Your task to perform on an android device: Open the stopwatch Image 0: 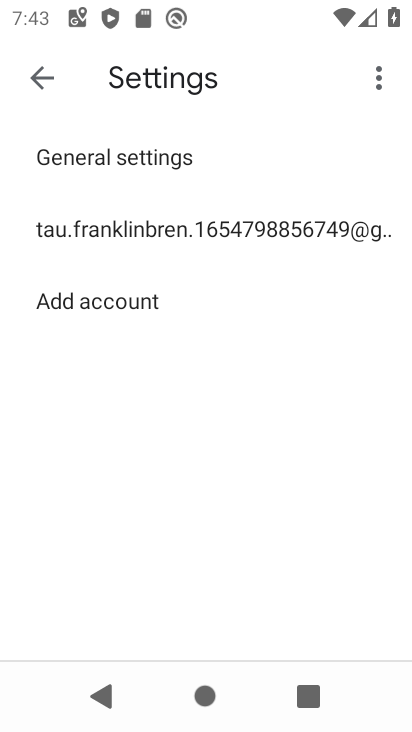
Step 0: press back button
Your task to perform on an android device: Open the stopwatch Image 1: 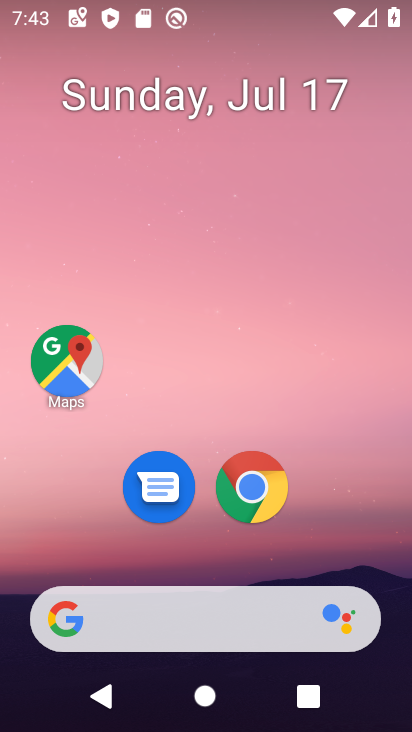
Step 1: drag from (190, 570) to (282, 56)
Your task to perform on an android device: Open the stopwatch Image 2: 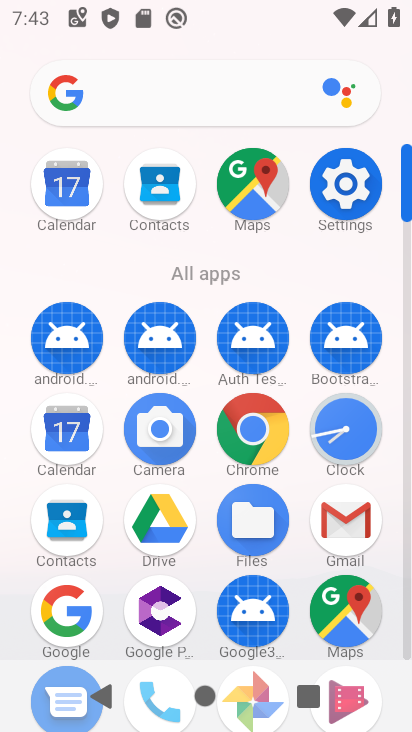
Step 2: click (369, 440)
Your task to perform on an android device: Open the stopwatch Image 3: 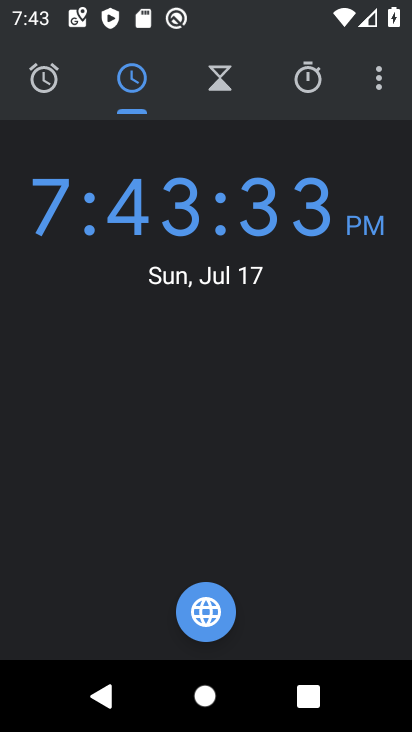
Step 3: click (309, 69)
Your task to perform on an android device: Open the stopwatch Image 4: 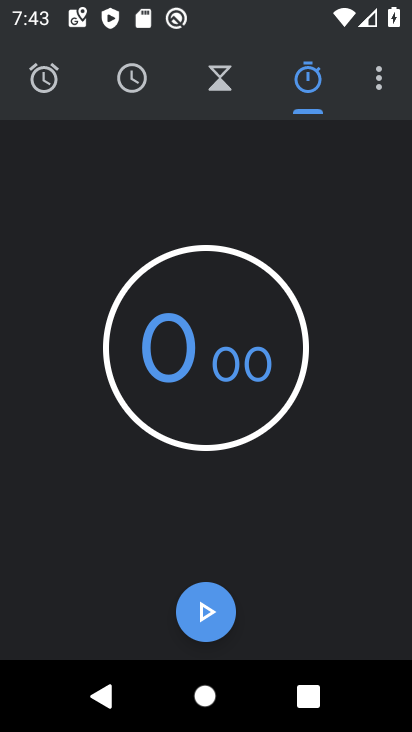
Step 4: task complete